Your task to perform on an android device: Go to eBay Image 0: 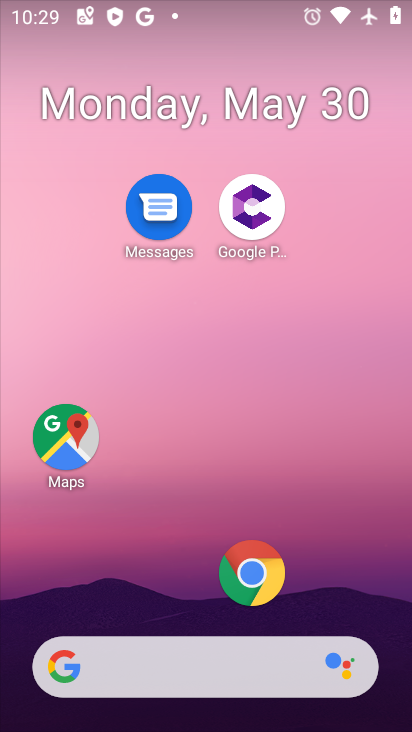
Step 0: drag from (174, 664) to (219, 162)
Your task to perform on an android device: Go to eBay Image 1: 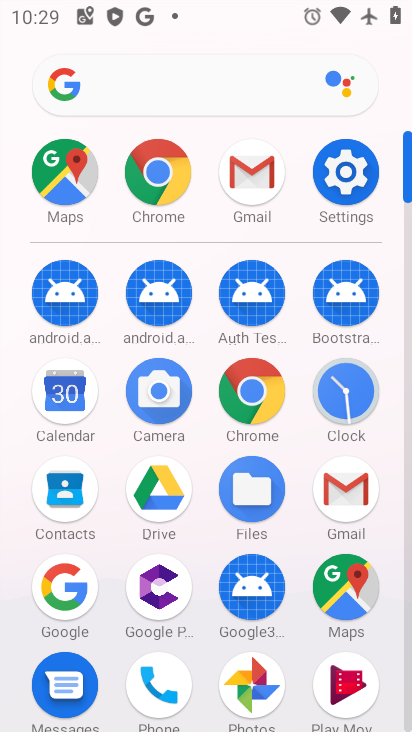
Step 1: click (186, 205)
Your task to perform on an android device: Go to eBay Image 2: 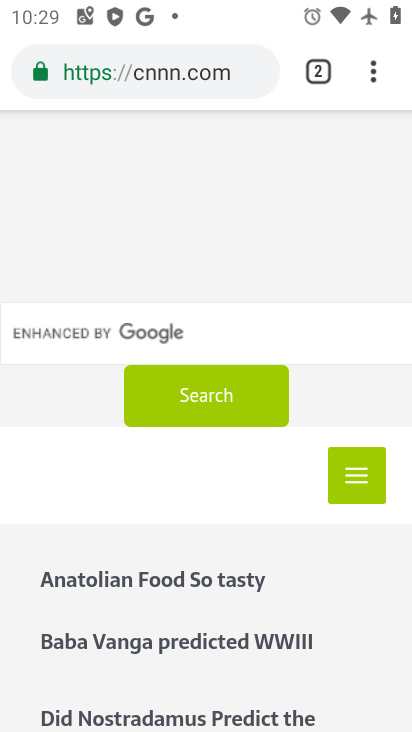
Step 2: click (209, 83)
Your task to perform on an android device: Go to eBay Image 3: 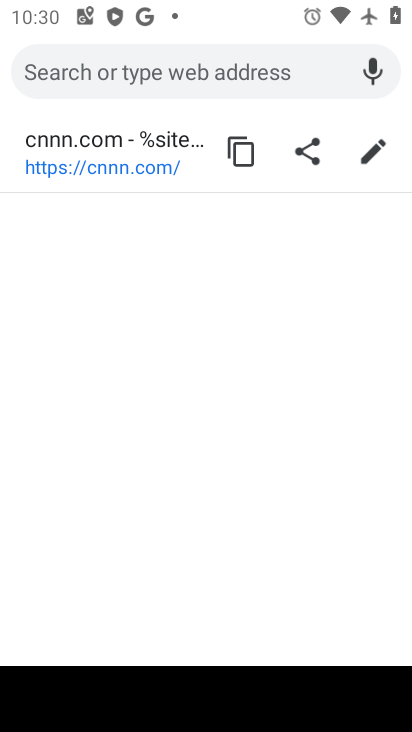
Step 3: type "ebay"
Your task to perform on an android device: Go to eBay Image 4: 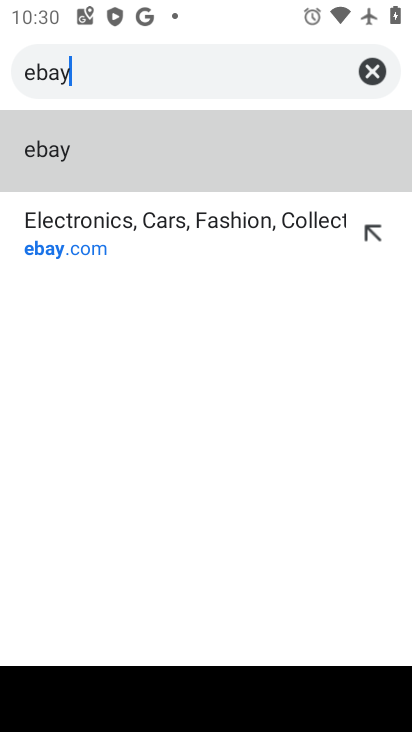
Step 4: click (200, 261)
Your task to perform on an android device: Go to eBay Image 5: 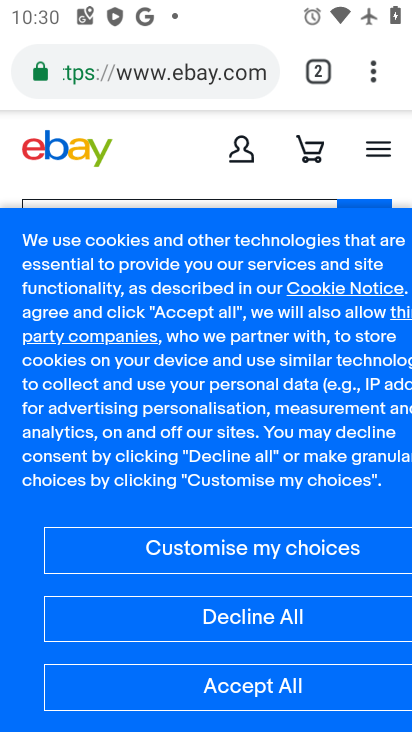
Step 5: task complete